Your task to perform on an android device: turn off sleep mode Image 0: 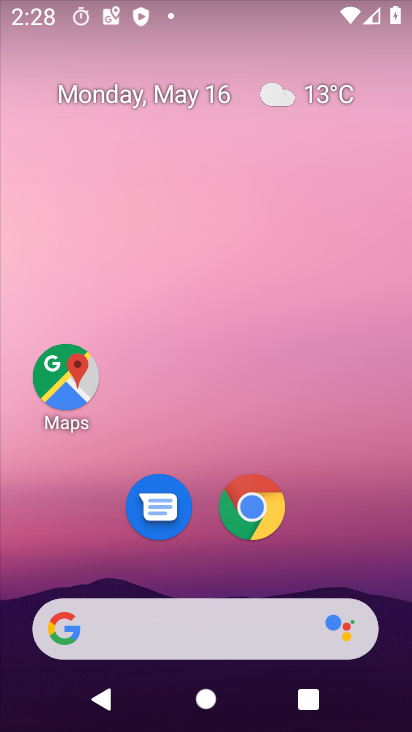
Step 0: drag from (373, 529) to (361, 233)
Your task to perform on an android device: turn off sleep mode Image 1: 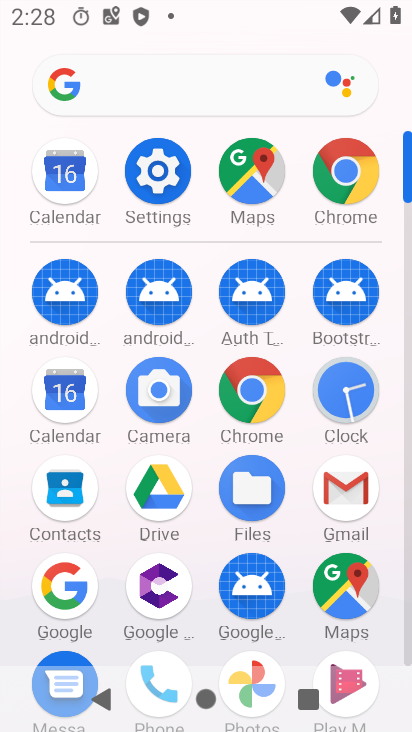
Step 1: click (141, 170)
Your task to perform on an android device: turn off sleep mode Image 2: 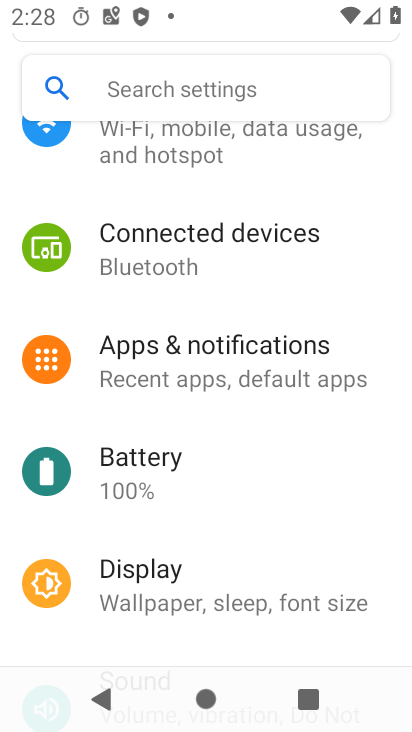
Step 2: drag from (373, 242) to (373, 425)
Your task to perform on an android device: turn off sleep mode Image 3: 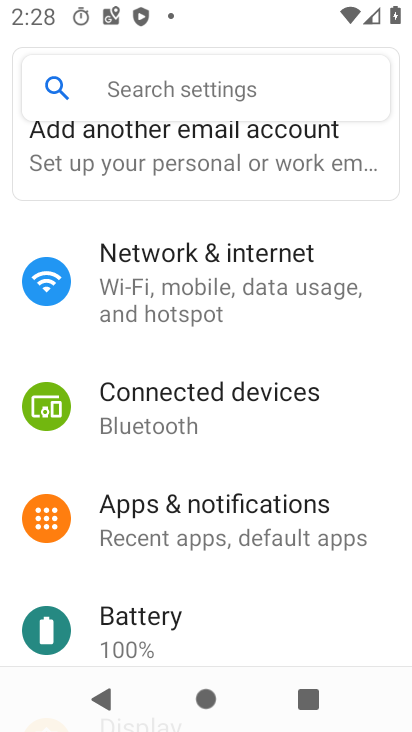
Step 3: drag from (382, 495) to (379, 370)
Your task to perform on an android device: turn off sleep mode Image 4: 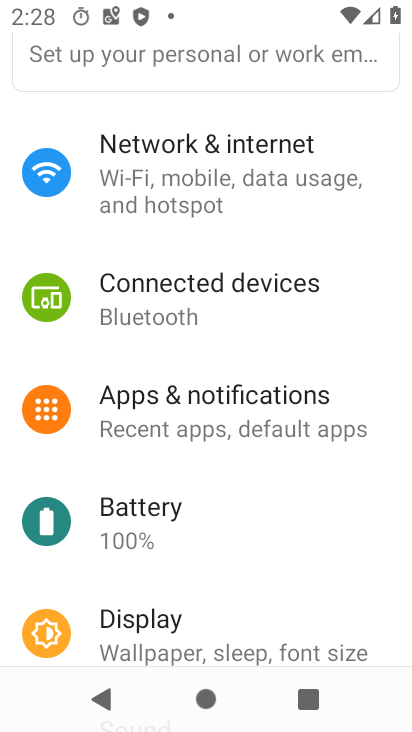
Step 4: drag from (345, 559) to (358, 374)
Your task to perform on an android device: turn off sleep mode Image 5: 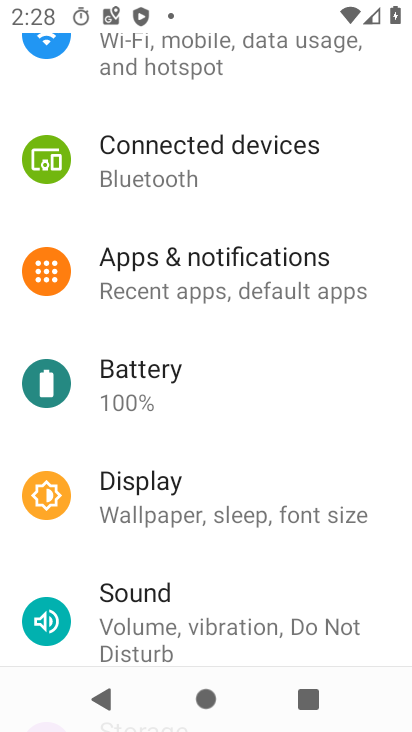
Step 5: drag from (362, 567) to (365, 430)
Your task to perform on an android device: turn off sleep mode Image 6: 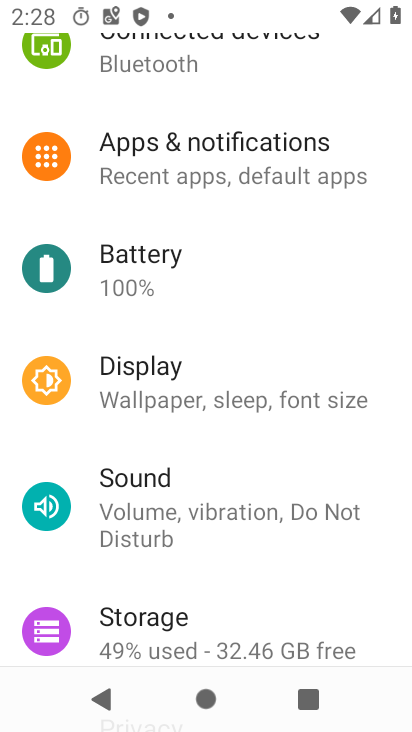
Step 6: drag from (356, 605) to (386, 370)
Your task to perform on an android device: turn off sleep mode Image 7: 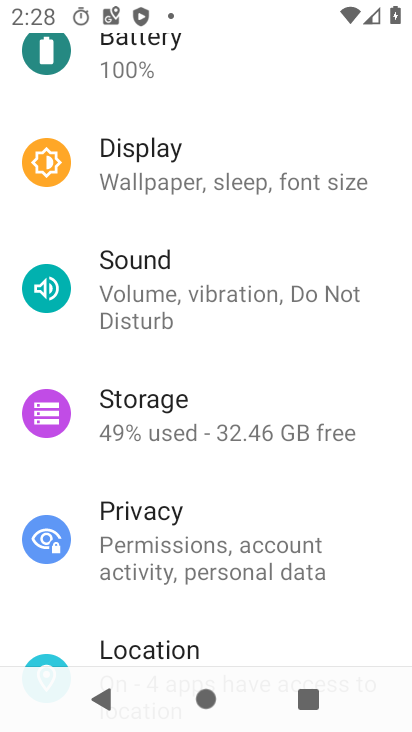
Step 7: drag from (358, 605) to (370, 434)
Your task to perform on an android device: turn off sleep mode Image 8: 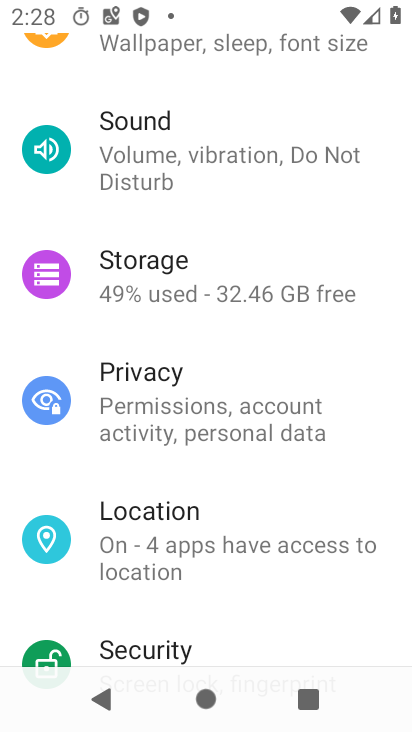
Step 8: drag from (323, 607) to (344, 463)
Your task to perform on an android device: turn off sleep mode Image 9: 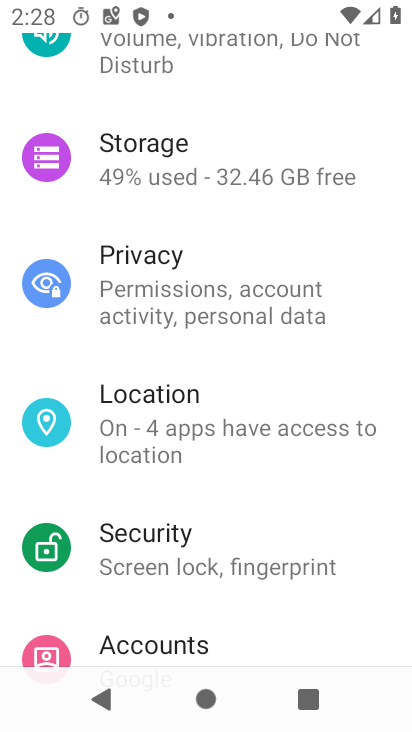
Step 9: drag from (333, 629) to (349, 497)
Your task to perform on an android device: turn off sleep mode Image 10: 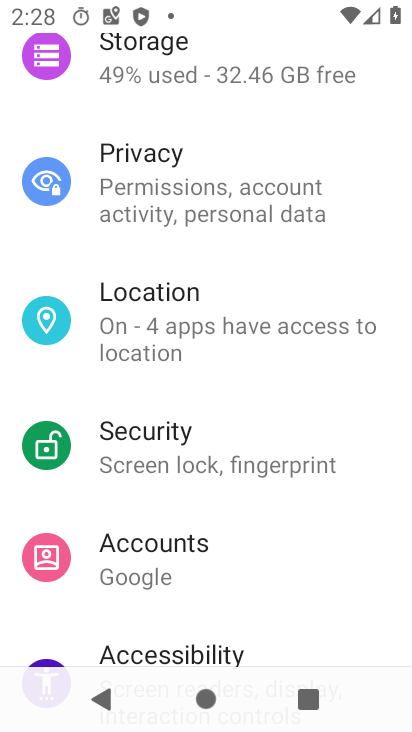
Step 10: drag from (367, 228) to (345, 426)
Your task to perform on an android device: turn off sleep mode Image 11: 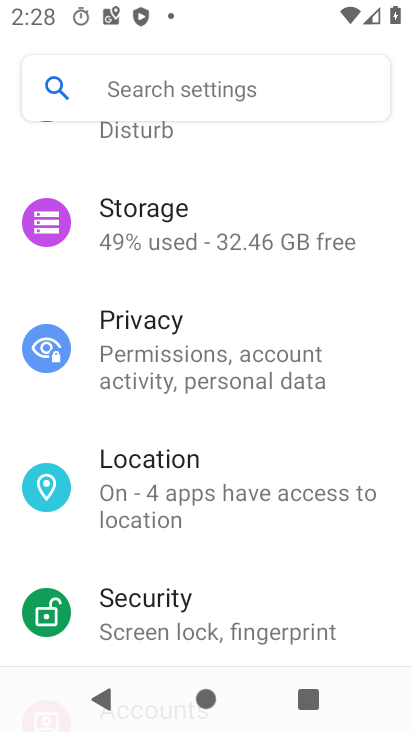
Step 11: drag from (370, 212) to (362, 400)
Your task to perform on an android device: turn off sleep mode Image 12: 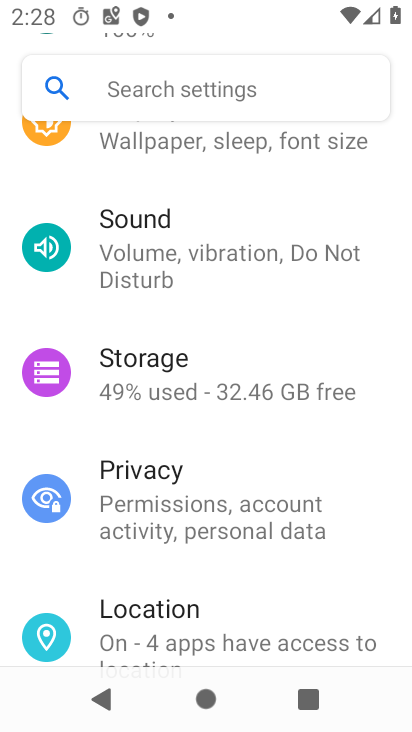
Step 12: drag from (376, 207) to (361, 392)
Your task to perform on an android device: turn off sleep mode Image 13: 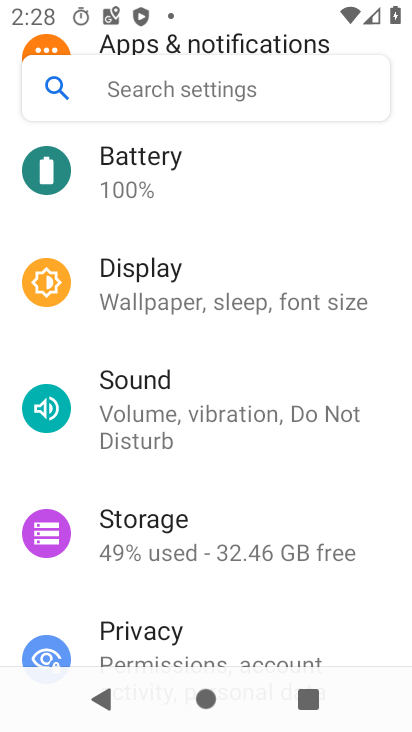
Step 13: click (292, 320)
Your task to perform on an android device: turn off sleep mode Image 14: 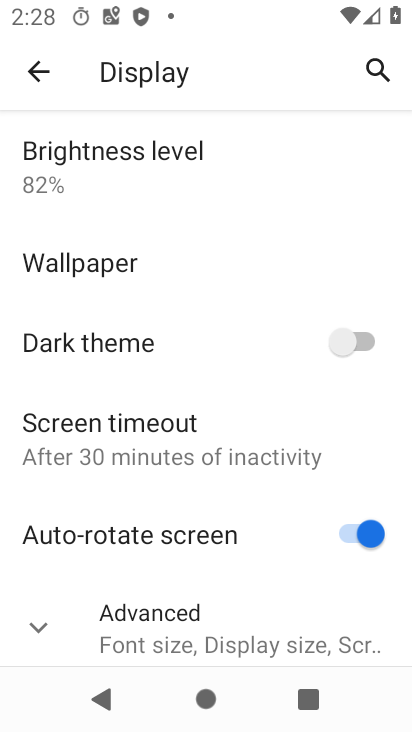
Step 14: click (190, 612)
Your task to perform on an android device: turn off sleep mode Image 15: 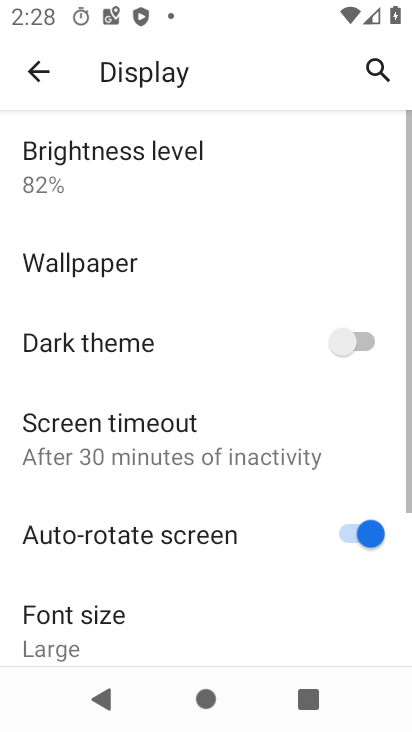
Step 15: task complete